Your task to perform on an android device: turn off sleep mode Image 0: 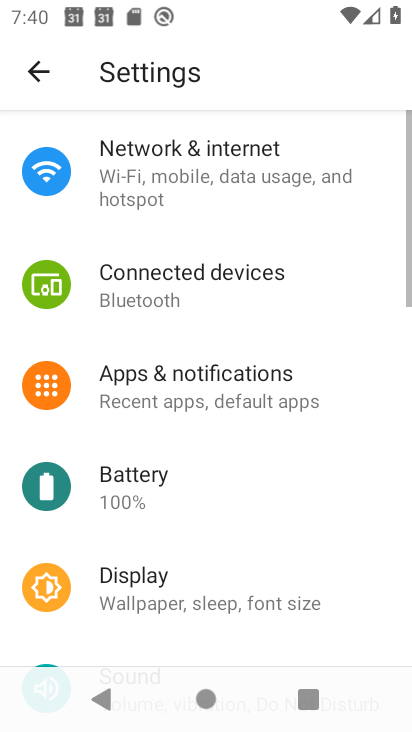
Step 0: press home button
Your task to perform on an android device: turn off sleep mode Image 1: 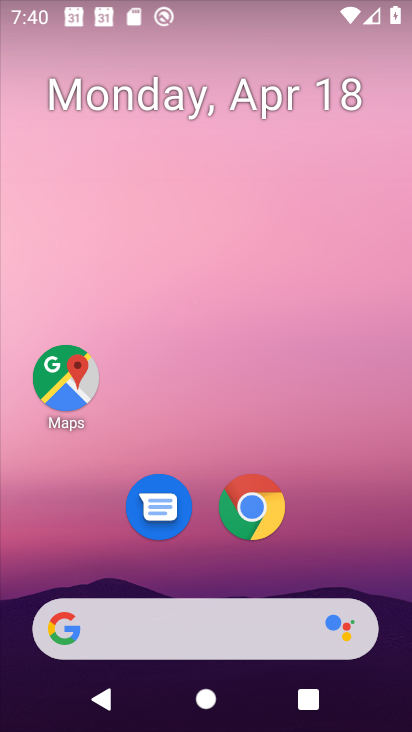
Step 1: drag from (5, 491) to (221, 91)
Your task to perform on an android device: turn off sleep mode Image 2: 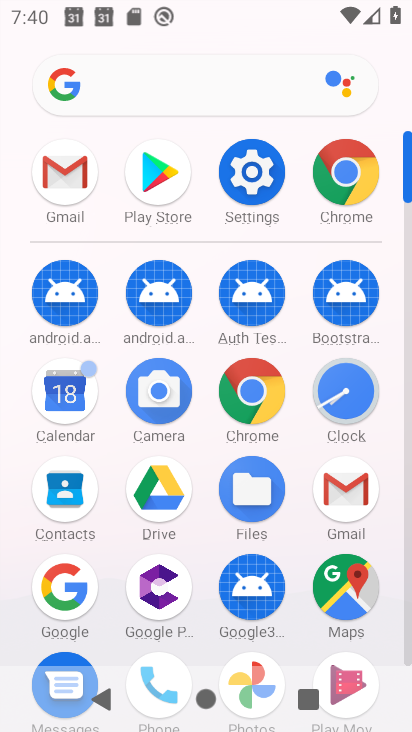
Step 2: click (251, 185)
Your task to perform on an android device: turn off sleep mode Image 3: 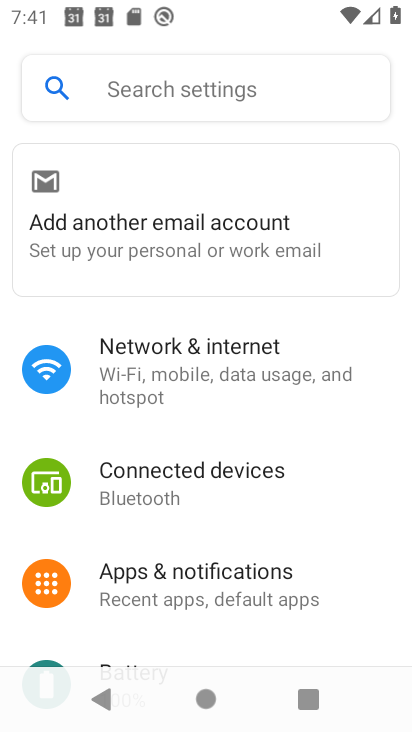
Step 3: task complete